Your task to perform on an android device: check out phone information Image 0: 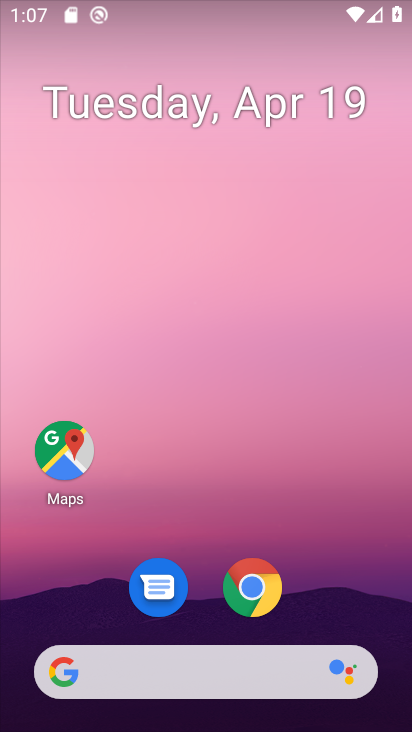
Step 0: drag from (210, 629) to (210, 99)
Your task to perform on an android device: check out phone information Image 1: 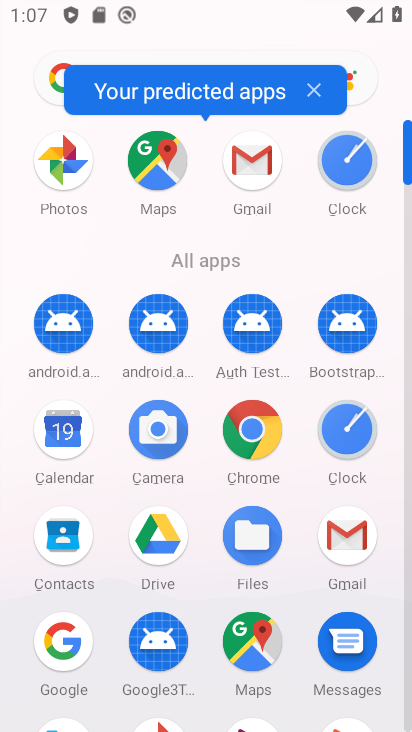
Step 1: drag from (208, 582) to (203, 119)
Your task to perform on an android device: check out phone information Image 2: 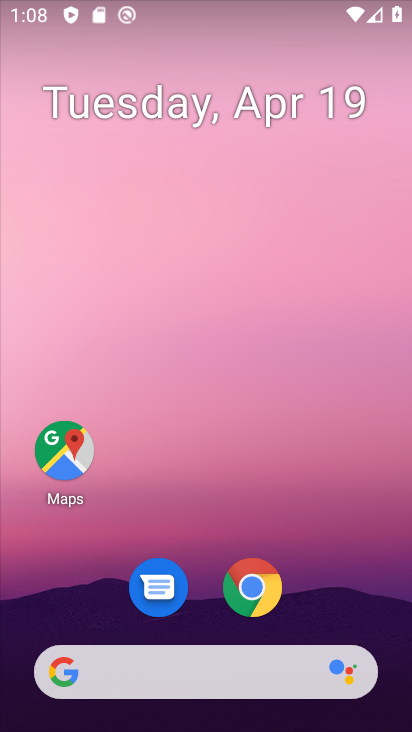
Step 2: drag from (208, 528) to (231, 107)
Your task to perform on an android device: check out phone information Image 3: 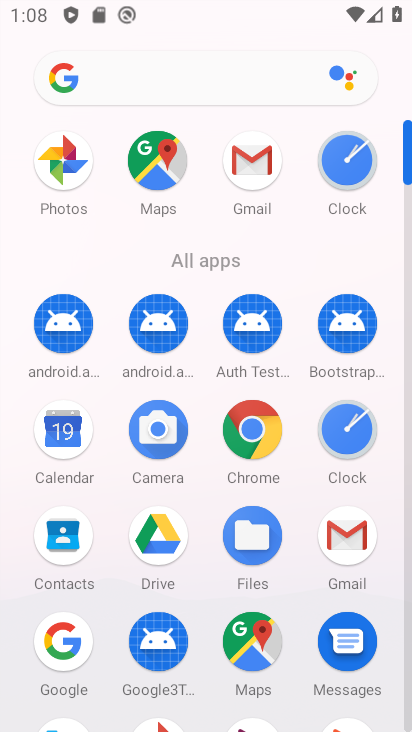
Step 3: drag from (198, 567) to (227, 170)
Your task to perform on an android device: check out phone information Image 4: 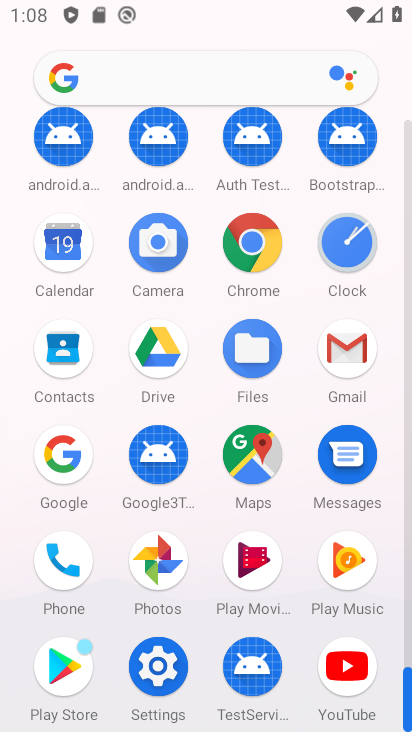
Step 4: click (154, 660)
Your task to perform on an android device: check out phone information Image 5: 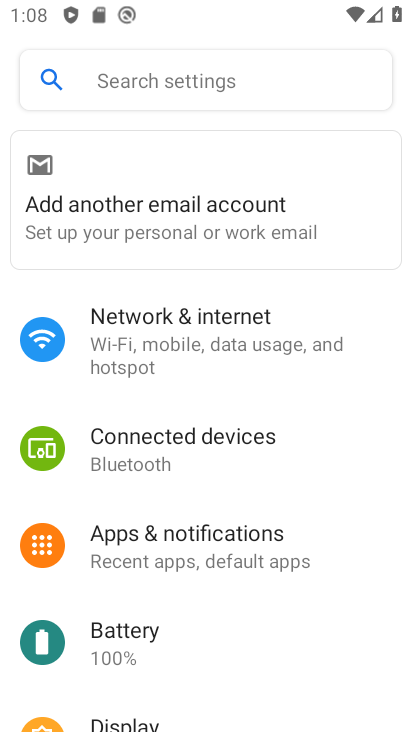
Step 5: drag from (191, 682) to (185, 97)
Your task to perform on an android device: check out phone information Image 6: 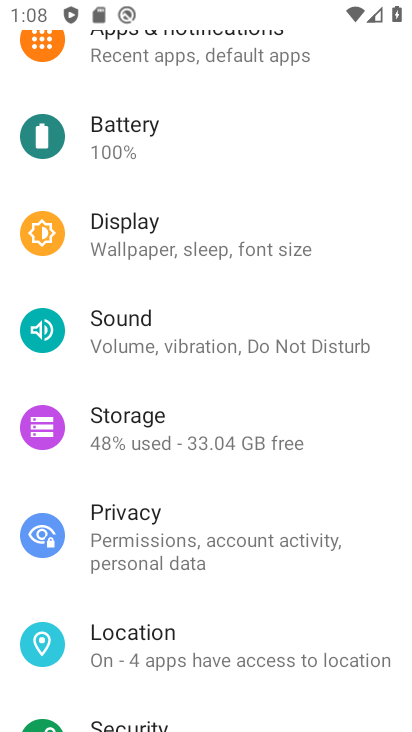
Step 6: drag from (178, 689) to (193, 114)
Your task to perform on an android device: check out phone information Image 7: 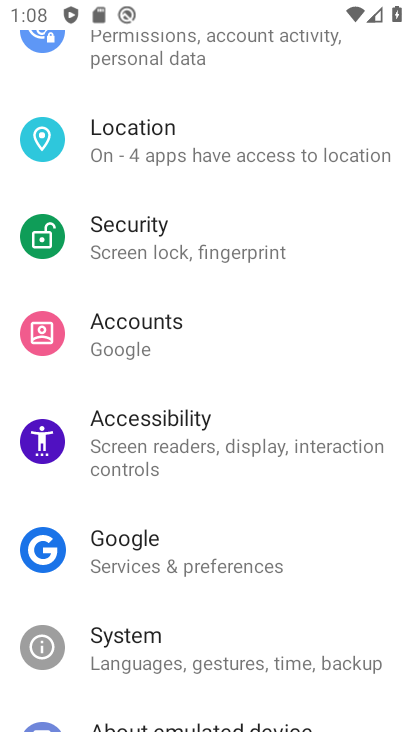
Step 7: drag from (199, 687) to (166, 219)
Your task to perform on an android device: check out phone information Image 8: 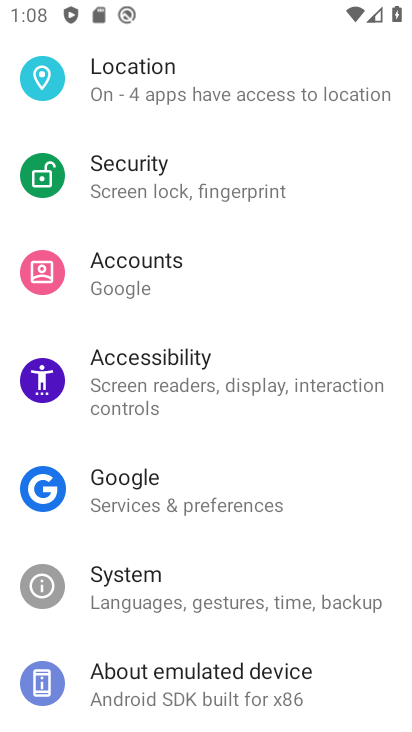
Step 8: click (320, 684)
Your task to perform on an android device: check out phone information Image 9: 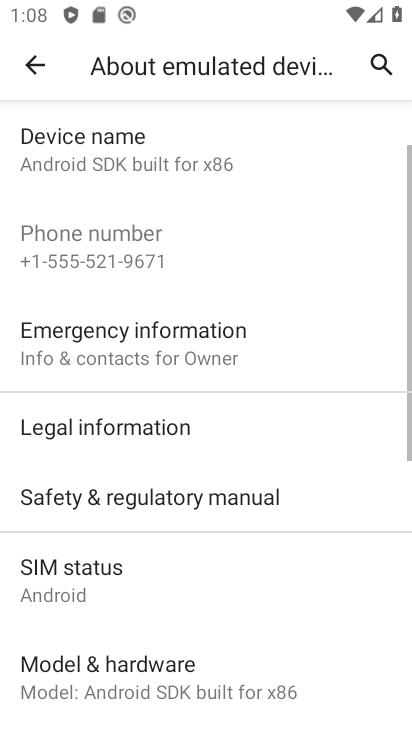
Step 9: task complete